Your task to perform on an android device: show emergency info Image 0: 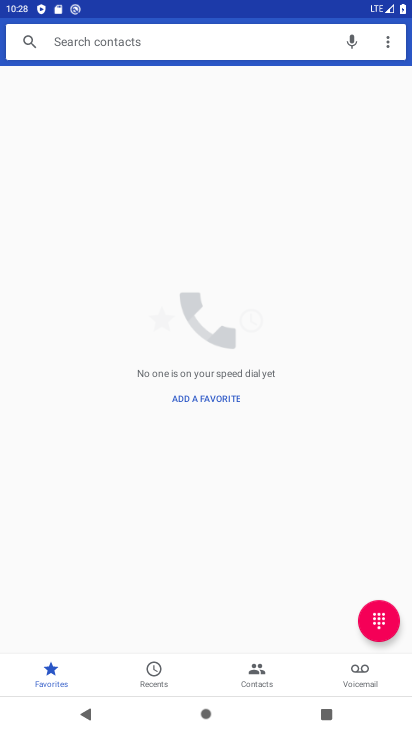
Step 0: press home button
Your task to perform on an android device: show emergency info Image 1: 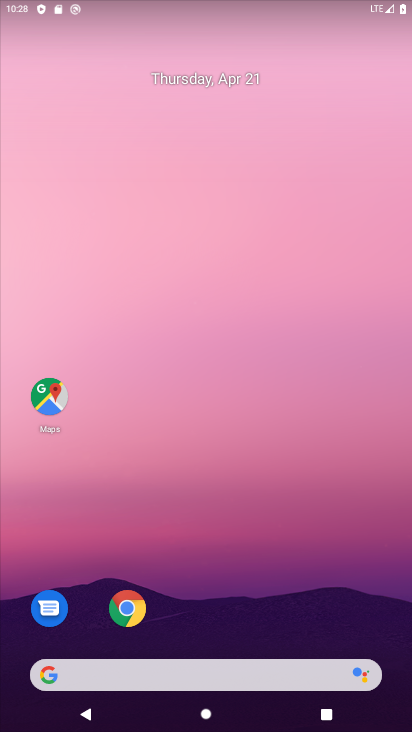
Step 1: drag from (236, 608) to (210, 160)
Your task to perform on an android device: show emergency info Image 2: 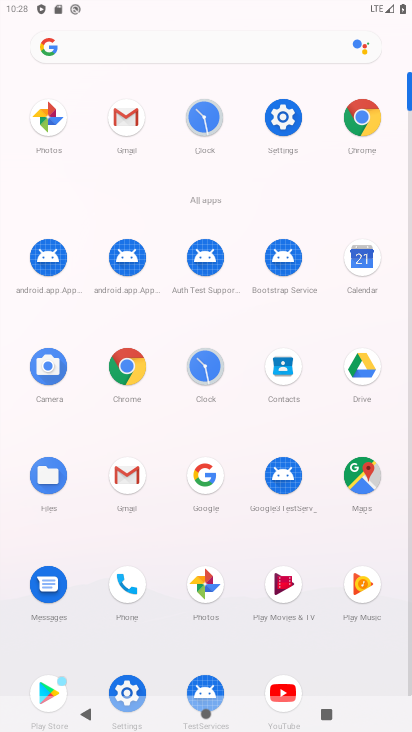
Step 2: click (122, 686)
Your task to perform on an android device: show emergency info Image 3: 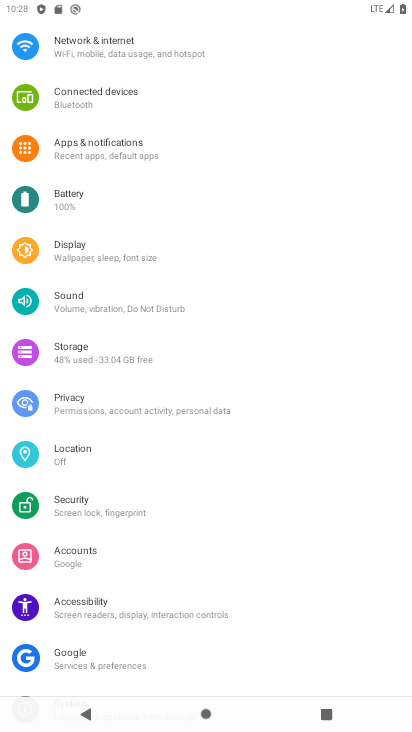
Step 3: drag from (313, 645) to (299, 359)
Your task to perform on an android device: show emergency info Image 4: 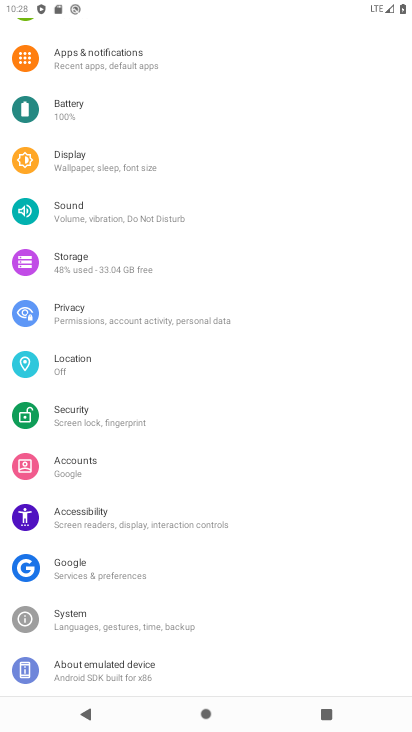
Step 4: click (98, 675)
Your task to perform on an android device: show emergency info Image 5: 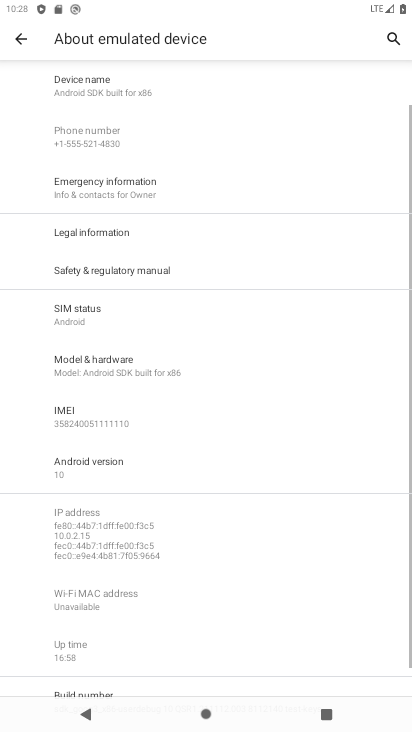
Step 5: click (170, 186)
Your task to perform on an android device: show emergency info Image 6: 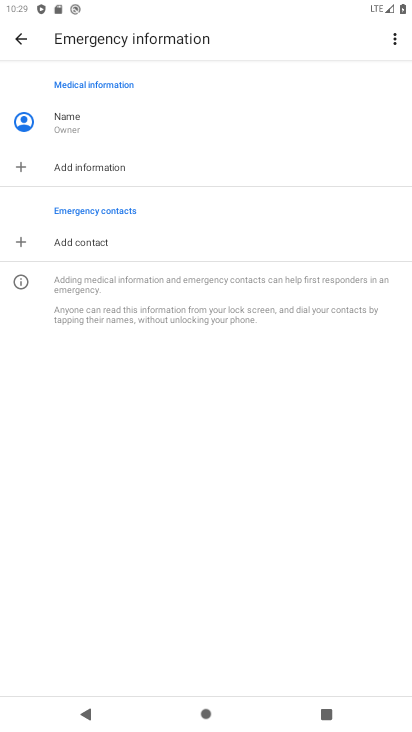
Step 6: task complete